Your task to perform on an android device: toggle show notifications on the lock screen Image 0: 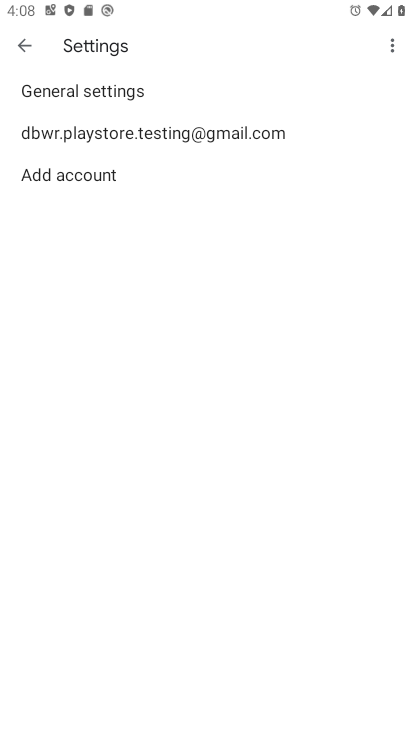
Step 0: press home button
Your task to perform on an android device: toggle show notifications on the lock screen Image 1: 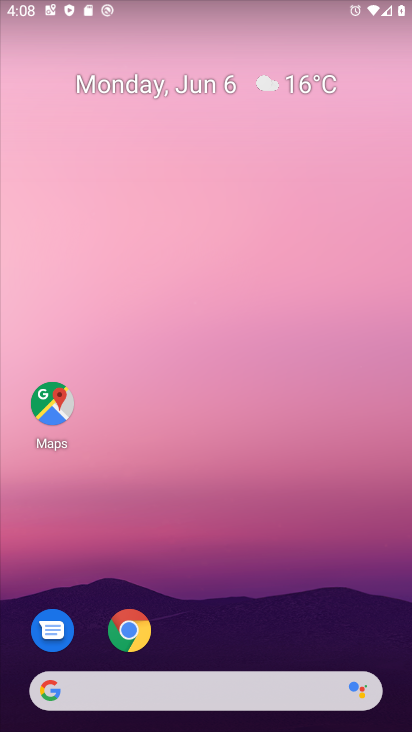
Step 1: drag from (224, 105) to (216, 61)
Your task to perform on an android device: toggle show notifications on the lock screen Image 2: 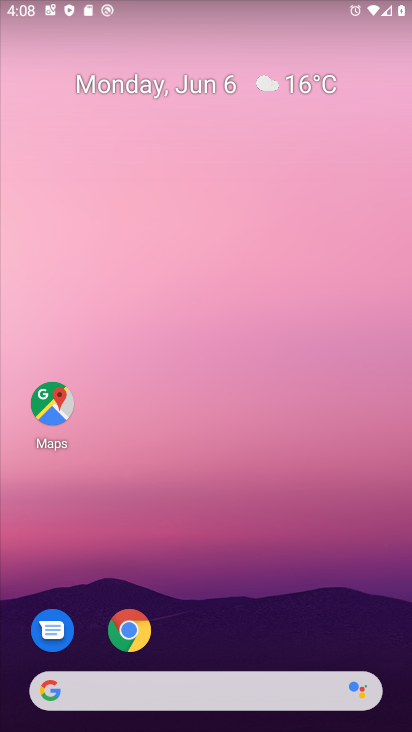
Step 2: drag from (240, 447) to (212, 9)
Your task to perform on an android device: toggle show notifications on the lock screen Image 3: 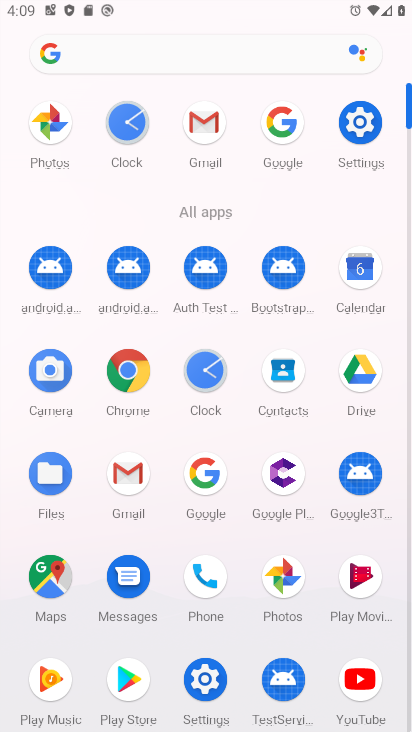
Step 3: click (364, 126)
Your task to perform on an android device: toggle show notifications on the lock screen Image 4: 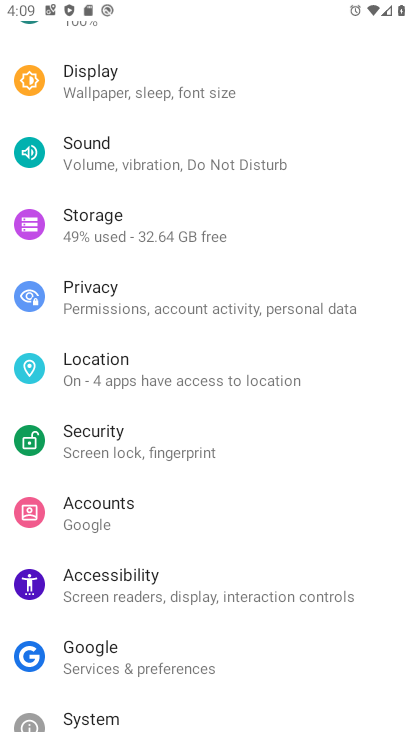
Step 4: drag from (231, 471) to (258, 77)
Your task to perform on an android device: toggle show notifications on the lock screen Image 5: 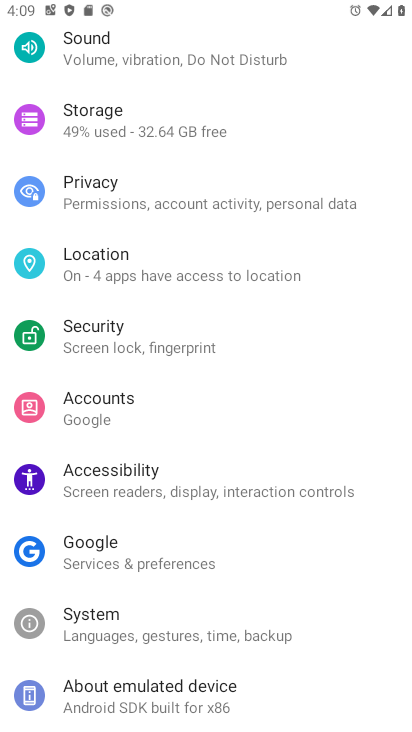
Step 5: drag from (165, 162) to (168, 692)
Your task to perform on an android device: toggle show notifications on the lock screen Image 6: 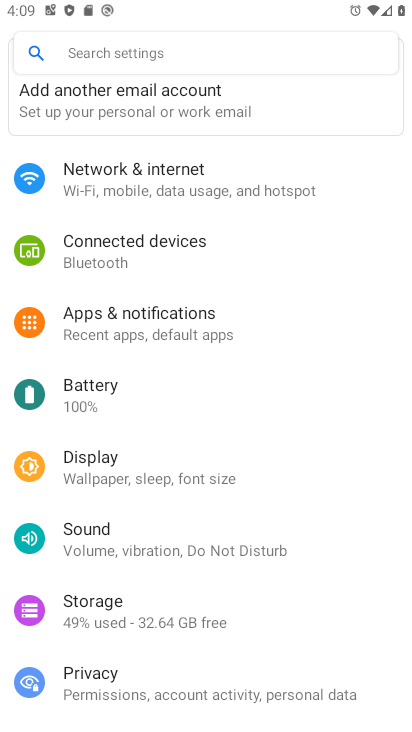
Step 6: click (208, 313)
Your task to perform on an android device: toggle show notifications on the lock screen Image 7: 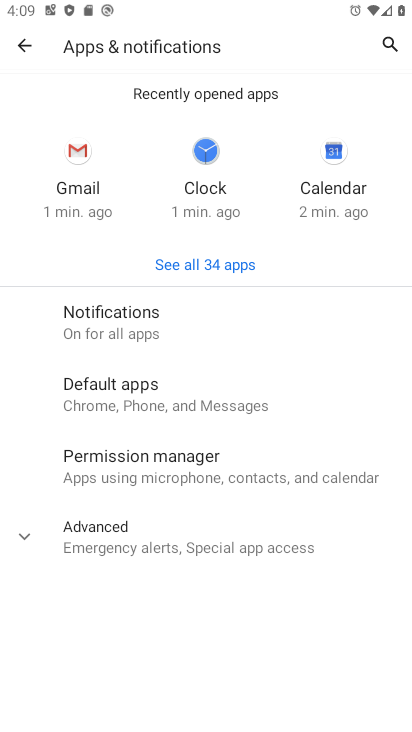
Step 7: click (180, 338)
Your task to perform on an android device: toggle show notifications on the lock screen Image 8: 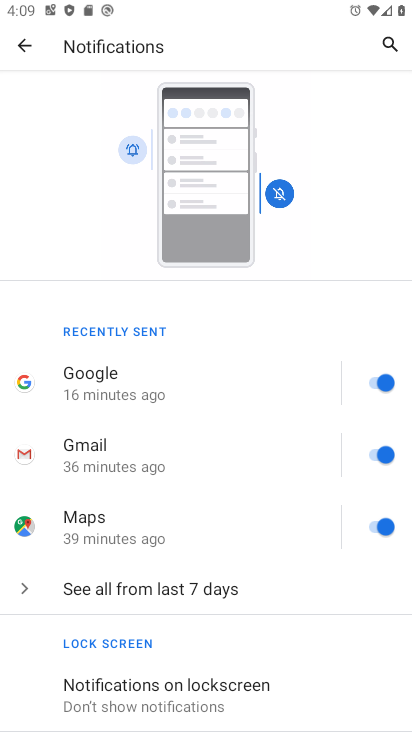
Step 8: click (226, 697)
Your task to perform on an android device: toggle show notifications on the lock screen Image 9: 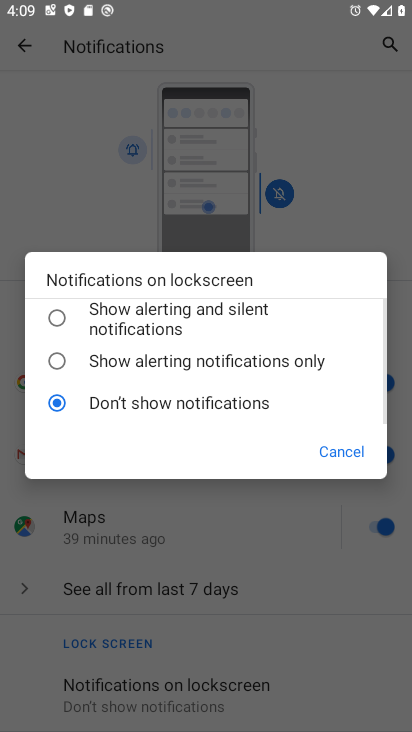
Step 9: click (142, 318)
Your task to perform on an android device: toggle show notifications on the lock screen Image 10: 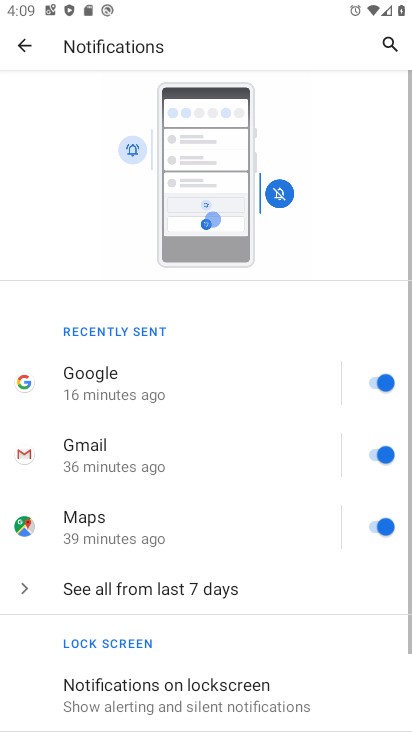
Step 10: task complete